Your task to perform on an android device: change notifications settings Image 0: 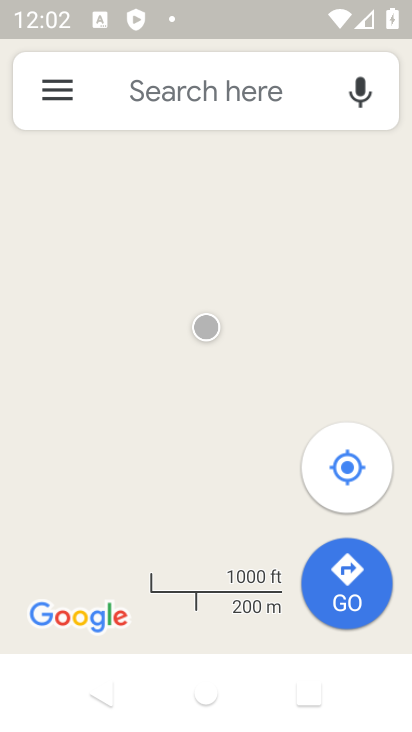
Step 0: press home button
Your task to perform on an android device: change notifications settings Image 1: 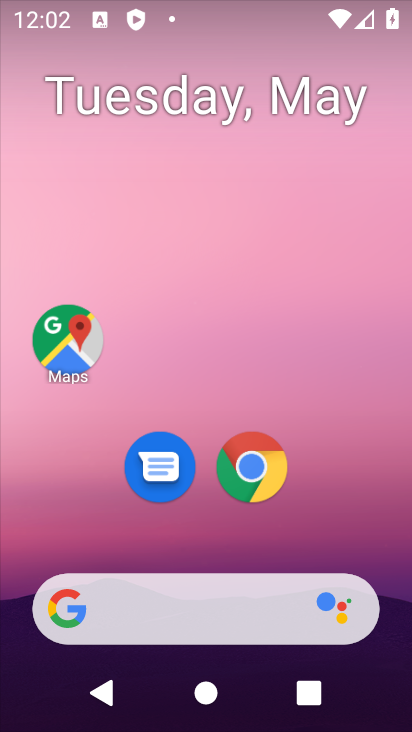
Step 1: drag from (299, 533) to (293, 28)
Your task to perform on an android device: change notifications settings Image 2: 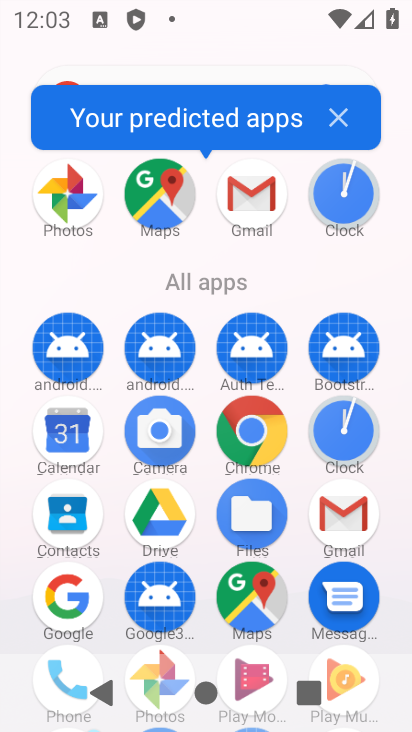
Step 2: drag from (109, 553) to (141, 243)
Your task to perform on an android device: change notifications settings Image 3: 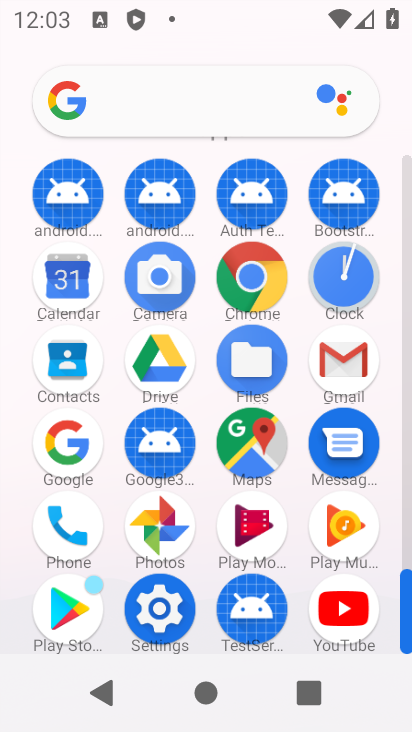
Step 3: click (168, 617)
Your task to perform on an android device: change notifications settings Image 4: 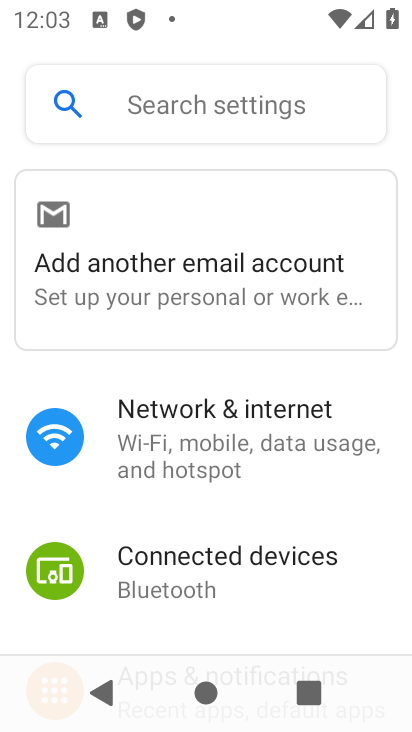
Step 4: drag from (281, 256) to (274, 80)
Your task to perform on an android device: change notifications settings Image 5: 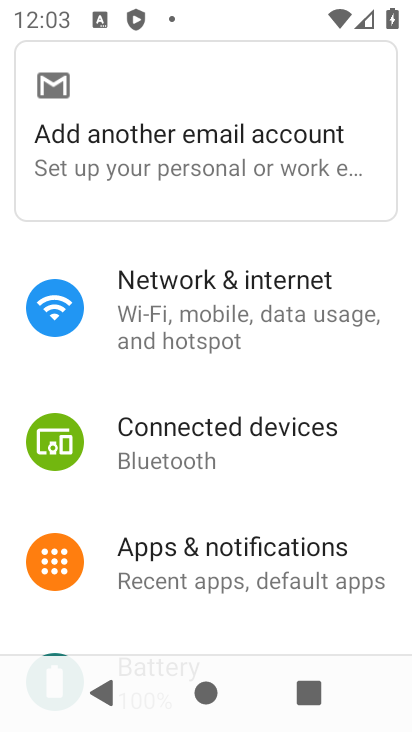
Step 5: click (264, 568)
Your task to perform on an android device: change notifications settings Image 6: 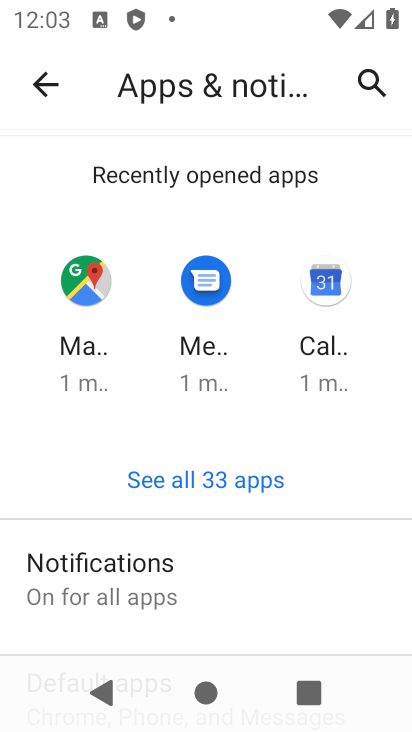
Step 6: drag from (264, 600) to (231, 126)
Your task to perform on an android device: change notifications settings Image 7: 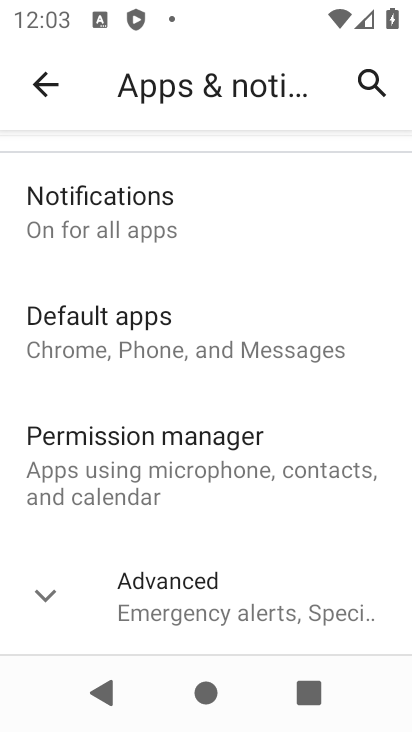
Step 7: drag from (233, 261) to (259, 607)
Your task to perform on an android device: change notifications settings Image 8: 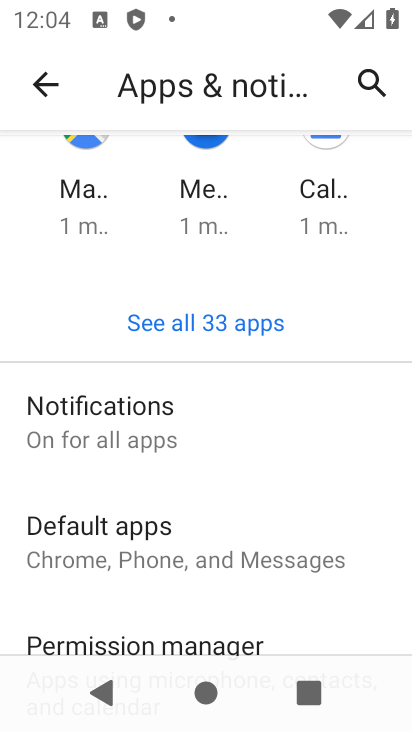
Step 8: drag from (342, 318) to (303, 659)
Your task to perform on an android device: change notifications settings Image 9: 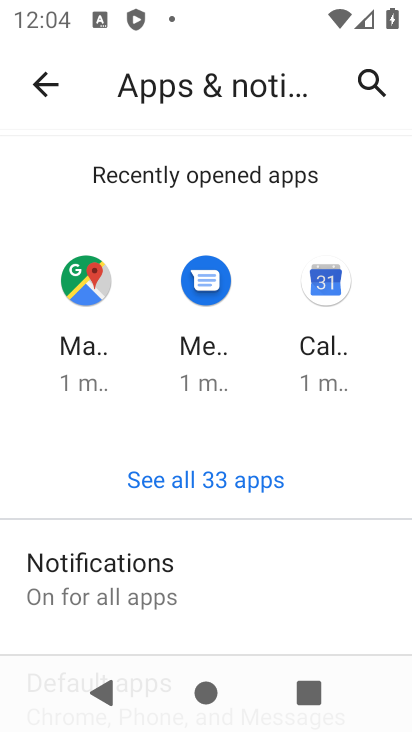
Step 9: click (231, 479)
Your task to perform on an android device: change notifications settings Image 10: 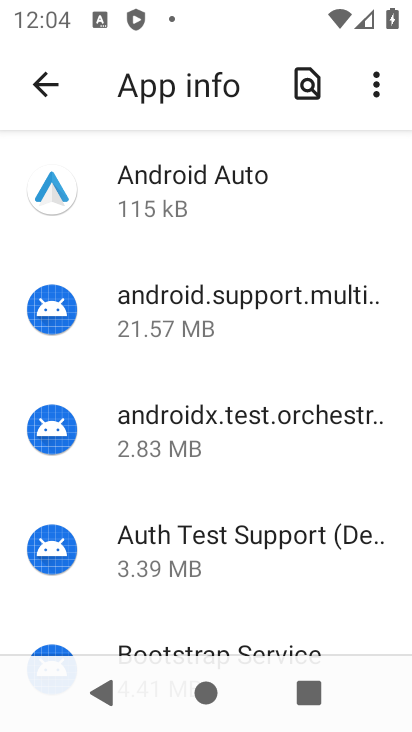
Step 10: drag from (258, 593) to (287, 137)
Your task to perform on an android device: change notifications settings Image 11: 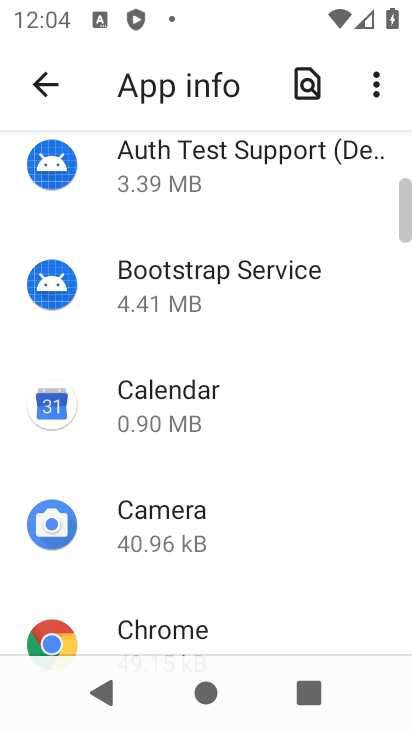
Step 11: click (179, 539)
Your task to perform on an android device: change notifications settings Image 12: 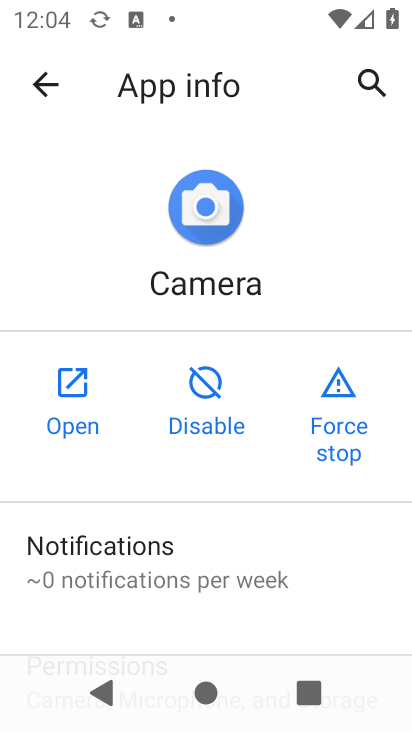
Step 12: click (100, 534)
Your task to perform on an android device: change notifications settings Image 13: 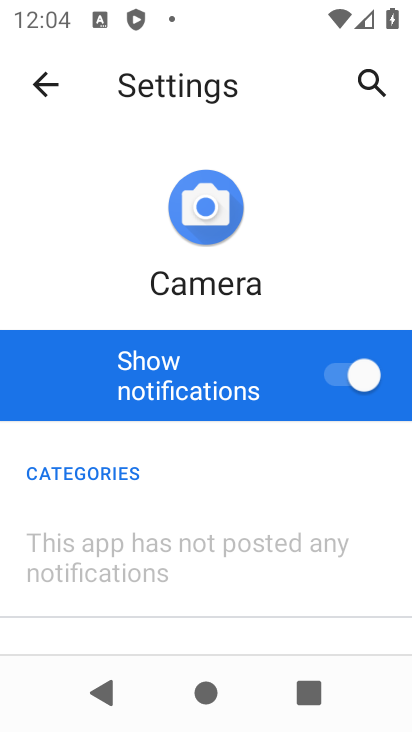
Step 13: click (339, 372)
Your task to perform on an android device: change notifications settings Image 14: 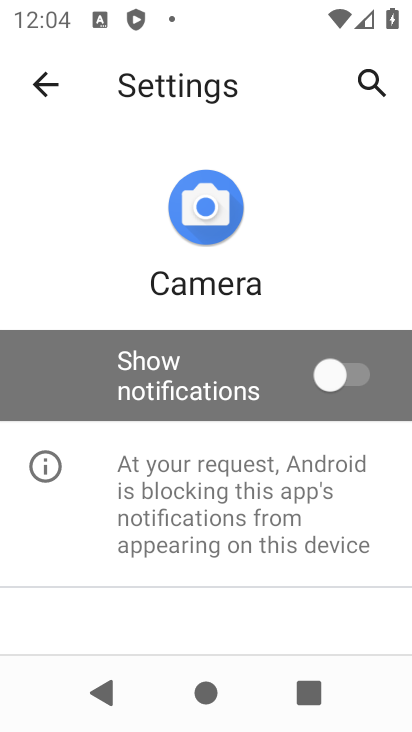
Step 14: task complete